Your task to perform on an android device: Go to Yahoo.com Image 0: 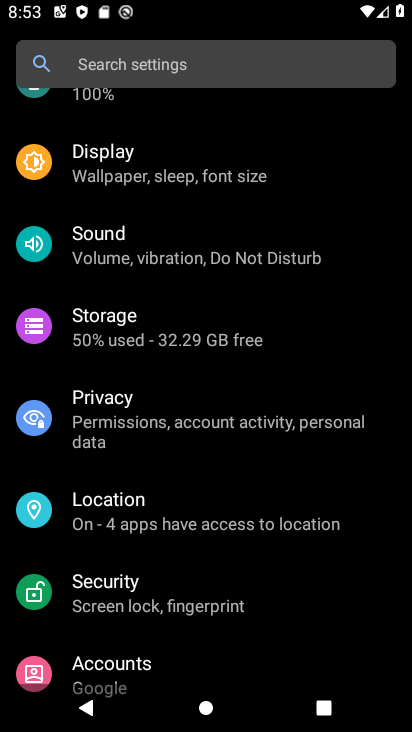
Step 0: press home button
Your task to perform on an android device: Go to Yahoo.com Image 1: 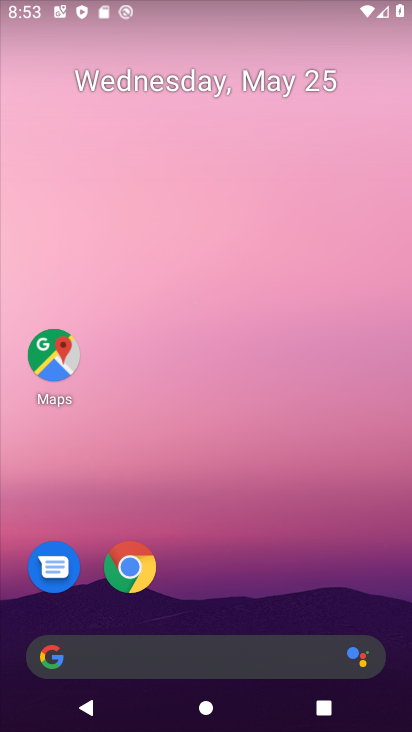
Step 1: click (139, 574)
Your task to perform on an android device: Go to Yahoo.com Image 2: 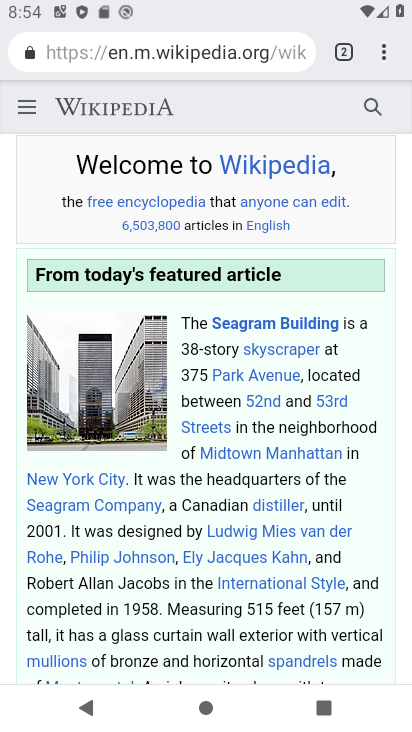
Step 2: click (159, 33)
Your task to perform on an android device: Go to Yahoo.com Image 3: 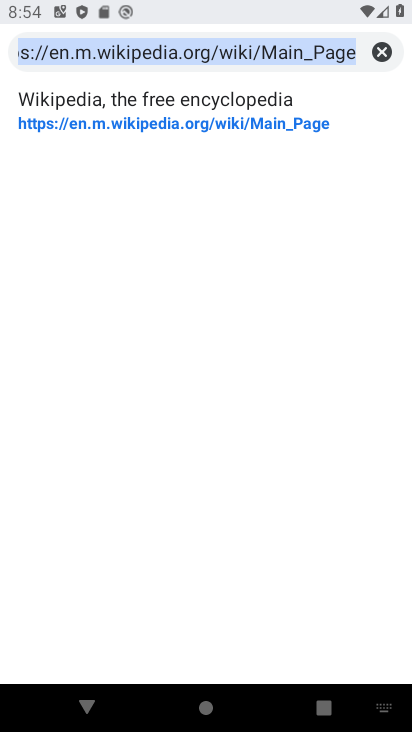
Step 3: type "yahoo.com"
Your task to perform on an android device: Go to Yahoo.com Image 4: 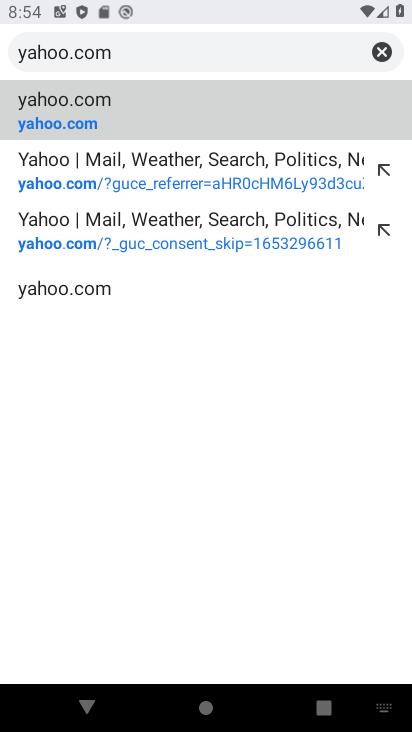
Step 4: click (243, 102)
Your task to perform on an android device: Go to Yahoo.com Image 5: 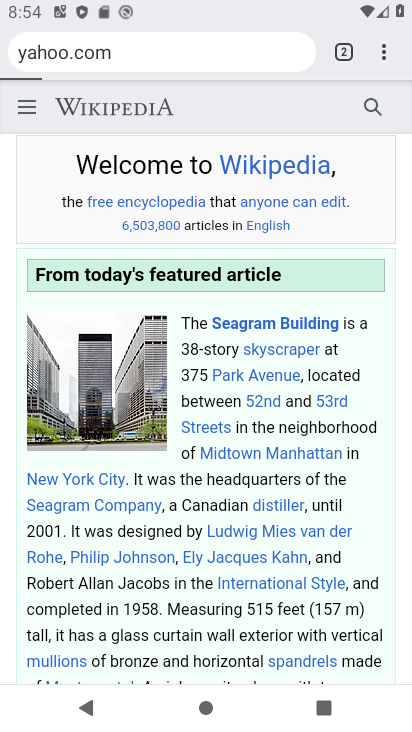
Step 5: task complete